Your task to perform on an android device: star an email in the gmail app Image 0: 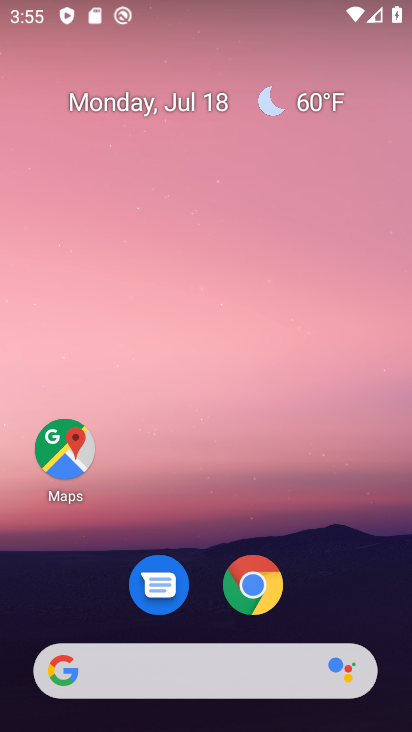
Step 0: drag from (319, 567) to (340, 63)
Your task to perform on an android device: star an email in the gmail app Image 1: 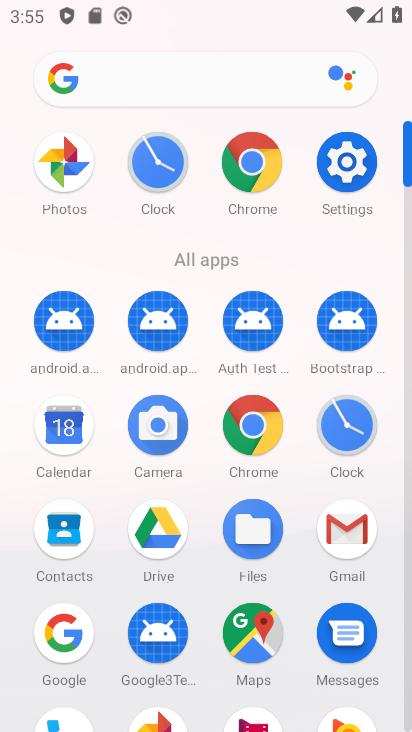
Step 1: click (337, 532)
Your task to perform on an android device: star an email in the gmail app Image 2: 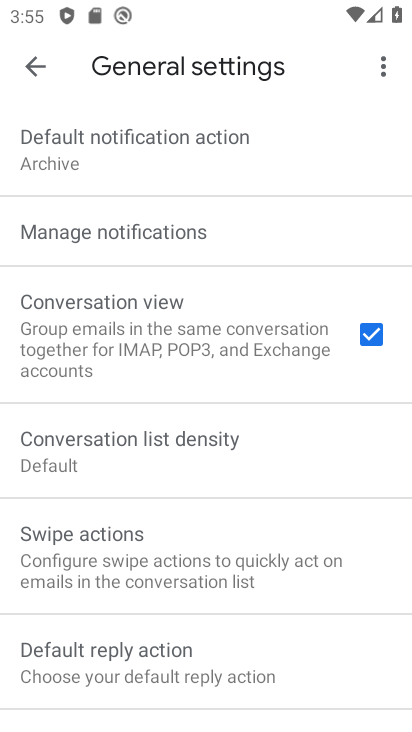
Step 2: click (36, 65)
Your task to perform on an android device: star an email in the gmail app Image 3: 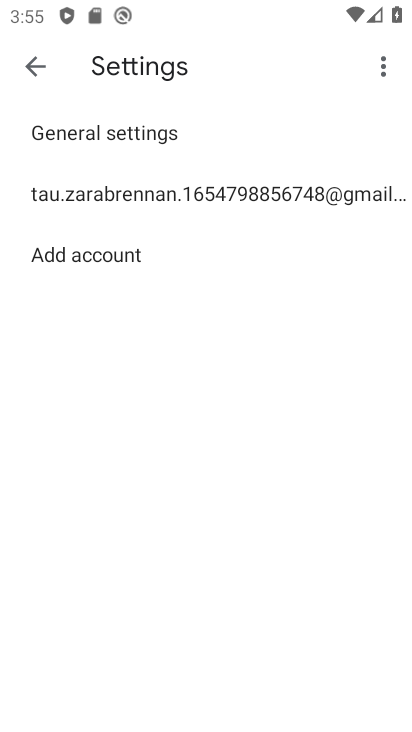
Step 3: click (36, 65)
Your task to perform on an android device: star an email in the gmail app Image 4: 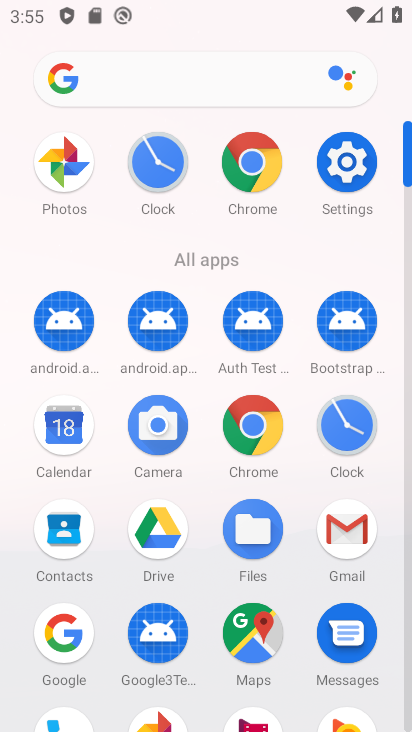
Step 4: click (336, 534)
Your task to perform on an android device: star an email in the gmail app Image 5: 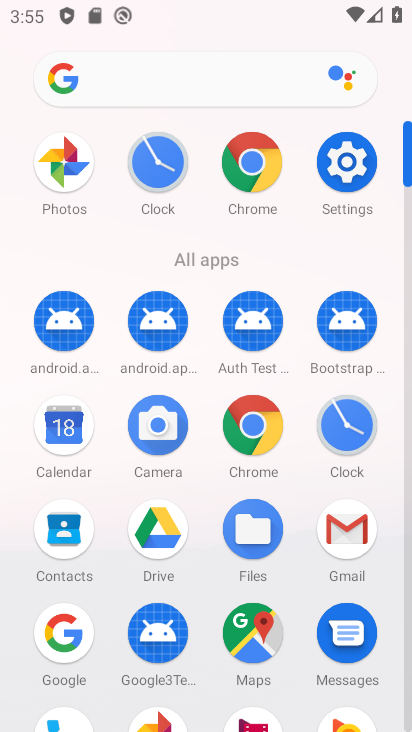
Step 5: click (351, 527)
Your task to perform on an android device: star an email in the gmail app Image 6: 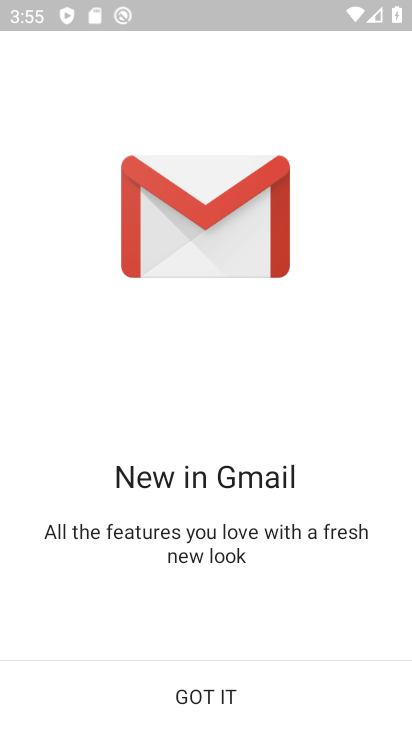
Step 6: click (202, 688)
Your task to perform on an android device: star an email in the gmail app Image 7: 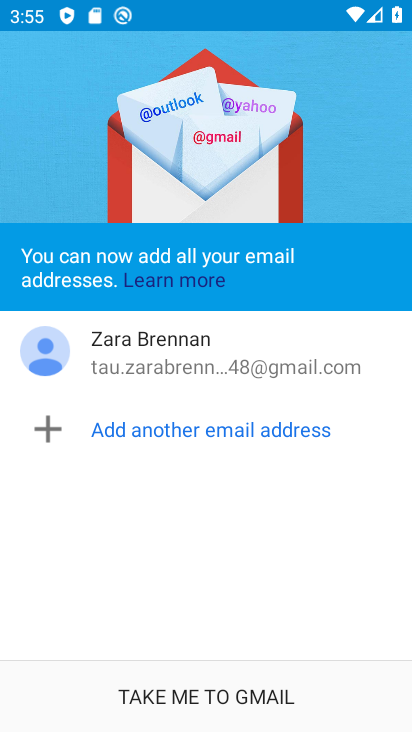
Step 7: click (202, 686)
Your task to perform on an android device: star an email in the gmail app Image 8: 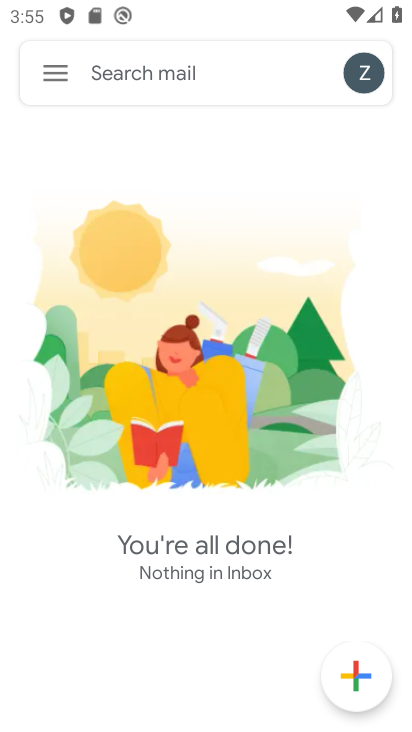
Step 8: click (57, 66)
Your task to perform on an android device: star an email in the gmail app Image 9: 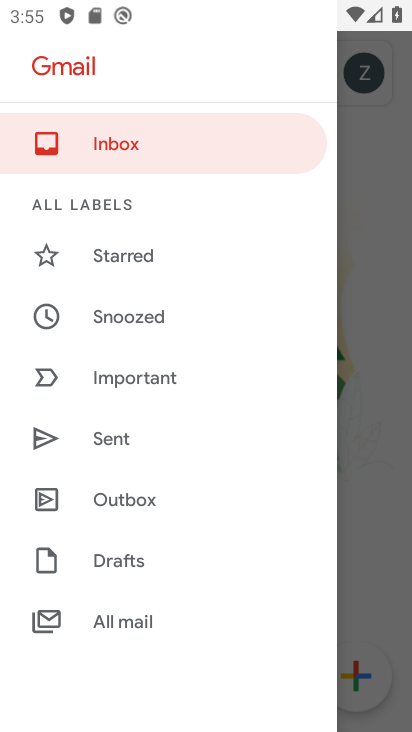
Step 9: drag from (171, 572) to (192, 347)
Your task to perform on an android device: star an email in the gmail app Image 10: 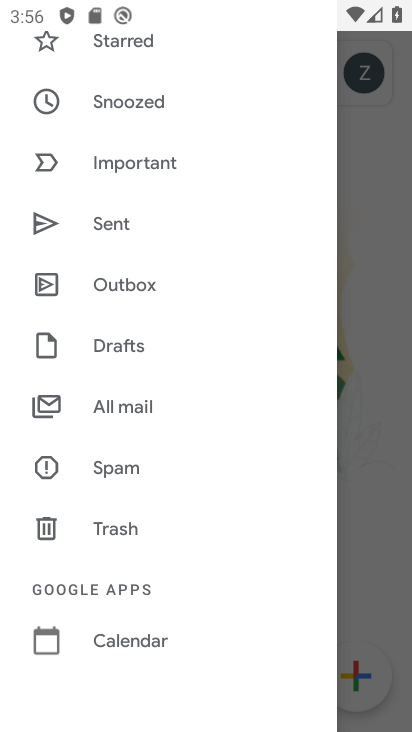
Step 10: click (137, 407)
Your task to perform on an android device: star an email in the gmail app Image 11: 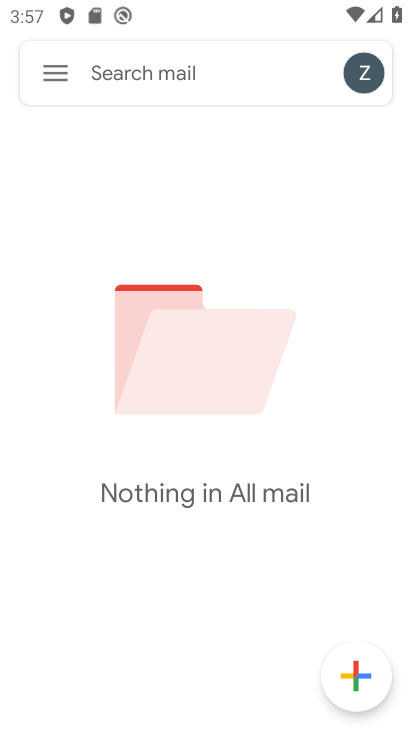
Step 11: task complete